Your task to perform on an android device: Open Amazon Image 0: 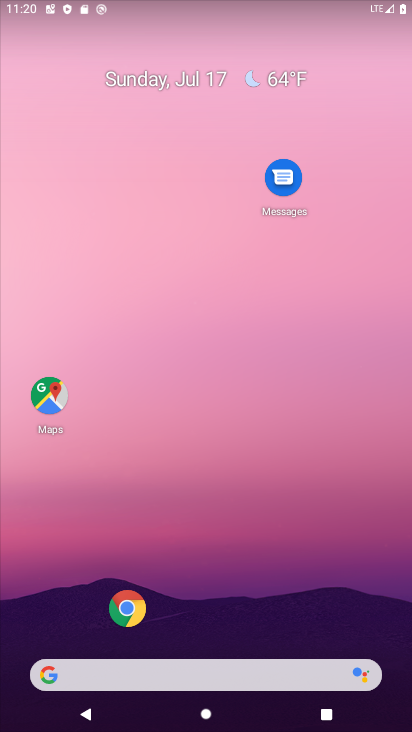
Step 0: click (86, 674)
Your task to perform on an android device: Open Amazon Image 1: 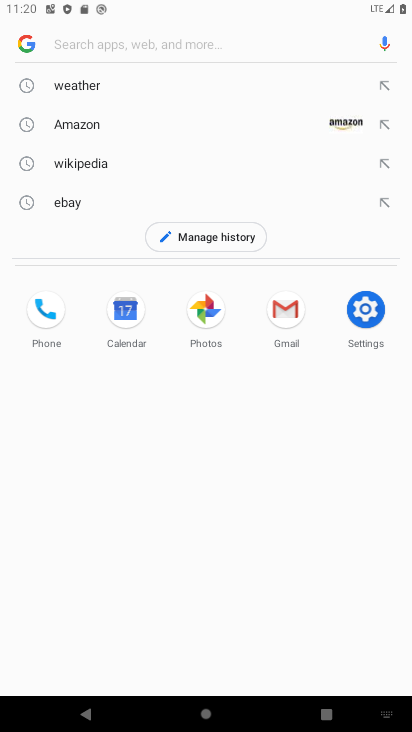
Step 1: click (117, 122)
Your task to perform on an android device: Open Amazon Image 2: 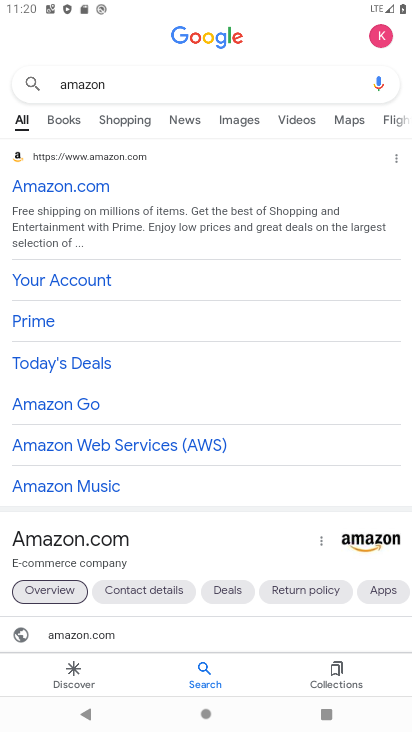
Step 2: task complete